Your task to perform on an android device: turn vacation reply on in the gmail app Image 0: 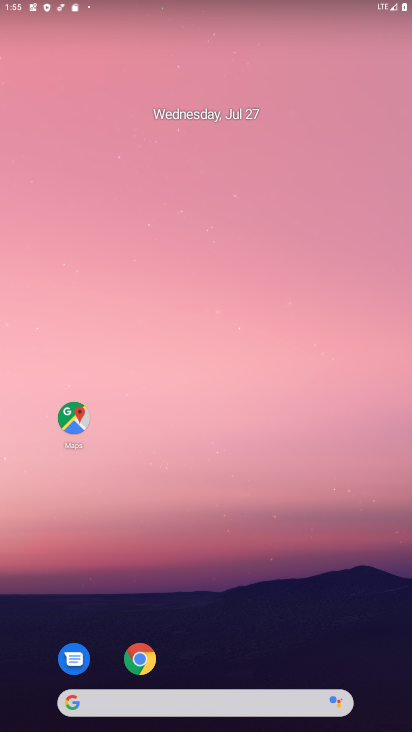
Step 0: drag from (234, 722) to (231, 32)
Your task to perform on an android device: turn vacation reply on in the gmail app Image 1: 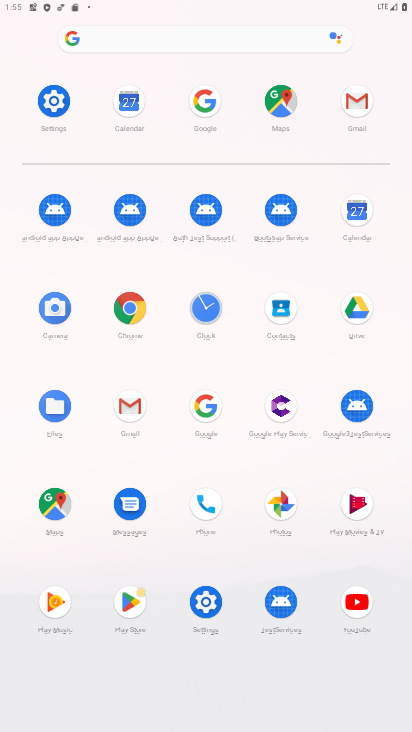
Step 1: click (132, 409)
Your task to perform on an android device: turn vacation reply on in the gmail app Image 2: 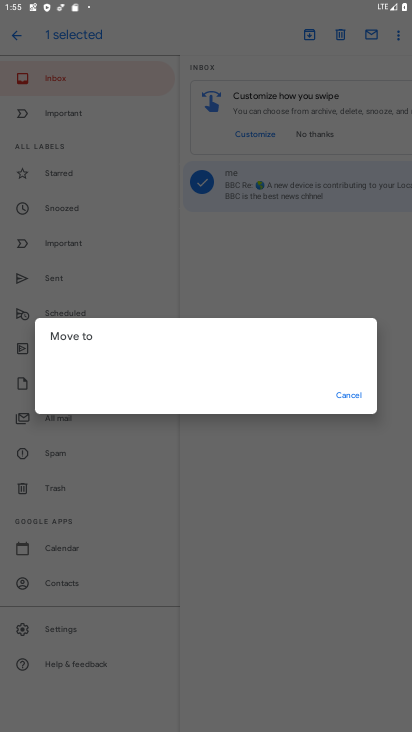
Step 2: click (345, 395)
Your task to perform on an android device: turn vacation reply on in the gmail app Image 3: 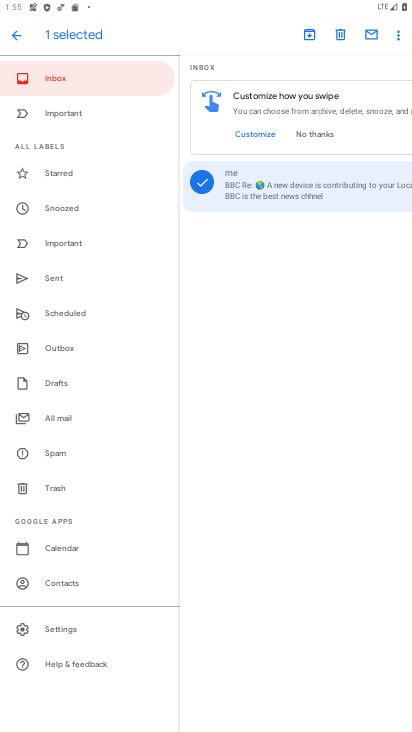
Step 3: click (61, 632)
Your task to perform on an android device: turn vacation reply on in the gmail app Image 4: 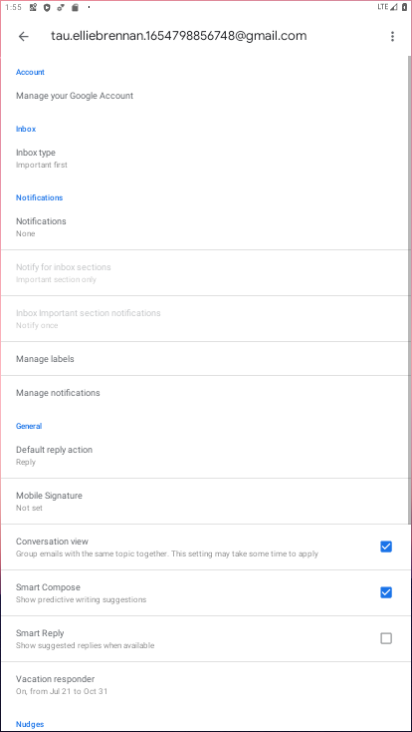
Step 4: click (61, 632)
Your task to perform on an android device: turn vacation reply on in the gmail app Image 5: 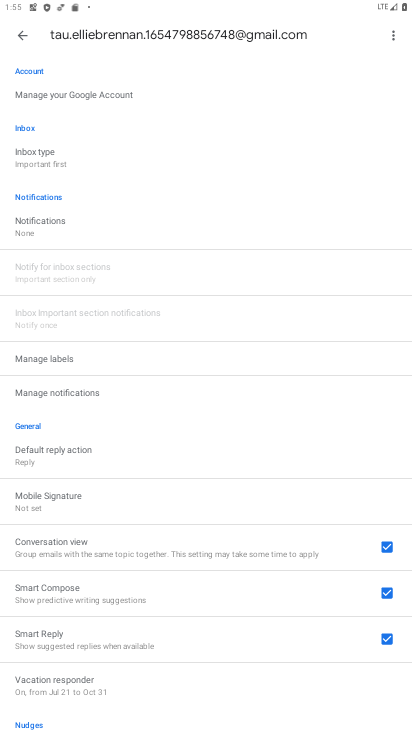
Step 5: click (55, 681)
Your task to perform on an android device: turn vacation reply on in the gmail app Image 6: 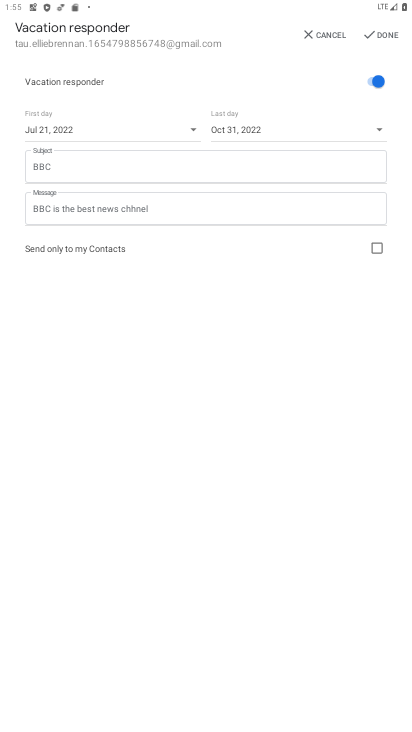
Step 6: task complete